Your task to perform on an android device: Go to eBay Image 0: 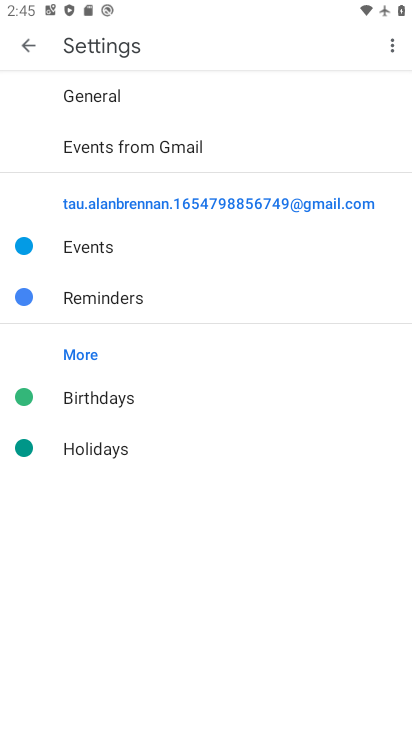
Step 0: press home button
Your task to perform on an android device: Go to eBay Image 1: 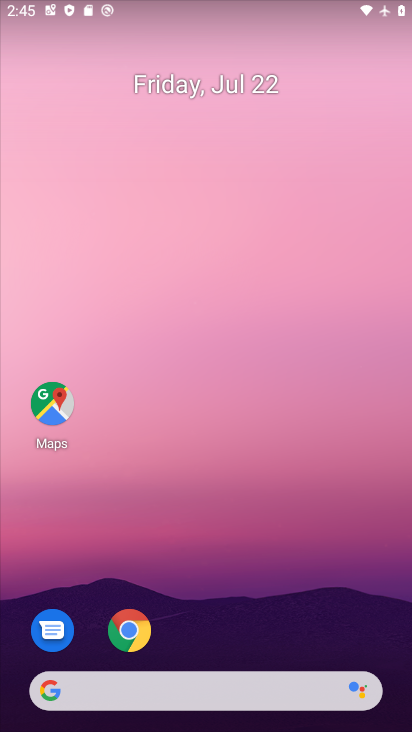
Step 1: drag from (190, 668) to (185, 171)
Your task to perform on an android device: Go to eBay Image 2: 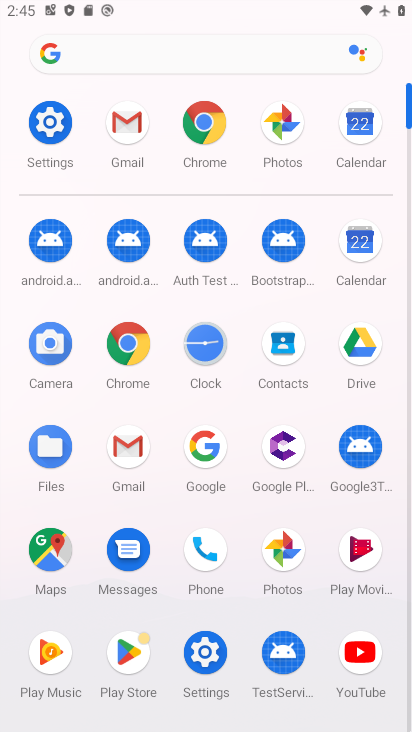
Step 2: click (211, 124)
Your task to perform on an android device: Go to eBay Image 3: 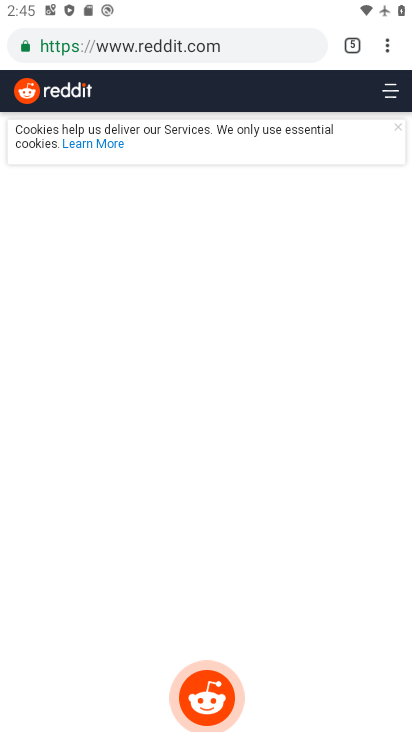
Step 3: click (360, 37)
Your task to perform on an android device: Go to eBay Image 4: 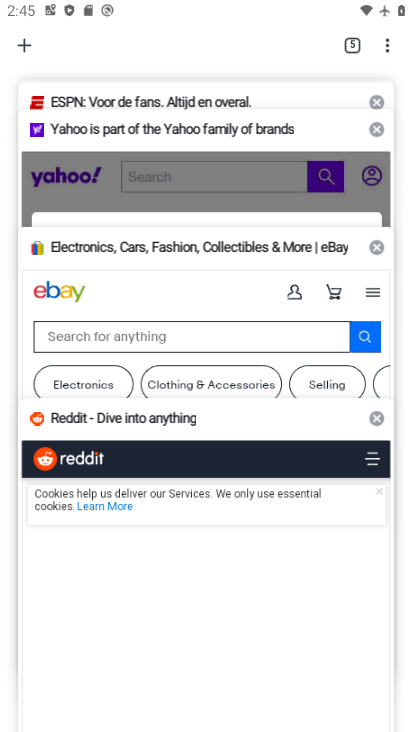
Step 4: click (97, 285)
Your task to perform on an android device: Go to eBay Image 5: 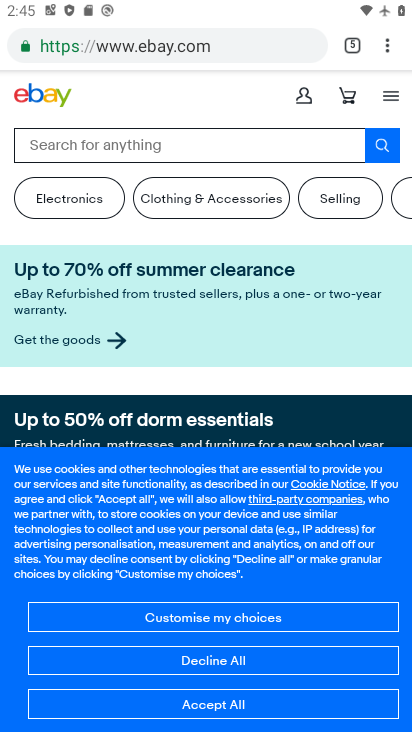
Step 5: task complete